Your task to perform on an android device: empty trash in the gmail app Image 0: 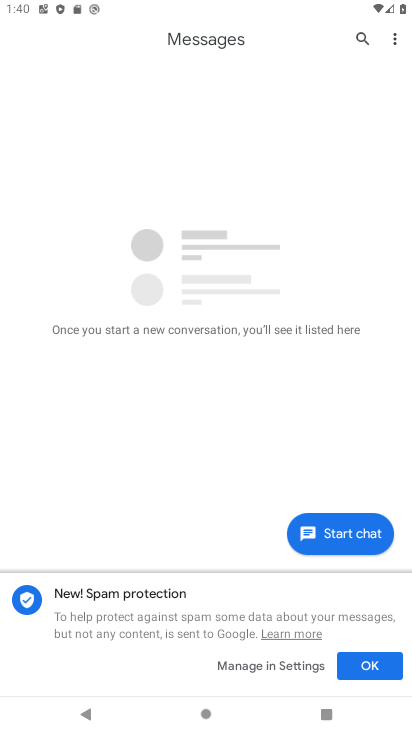
Step 0: press home button
Your task to perform on an android device: empty trash in the gmail app Image 1: 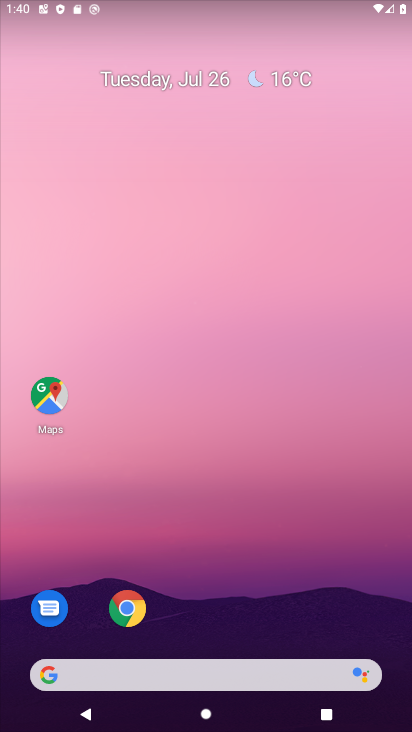
Step 1: drag from (252, 604) to (200, 187)
Your task to perform on an android device: empty trash in the gmail app Image 2: 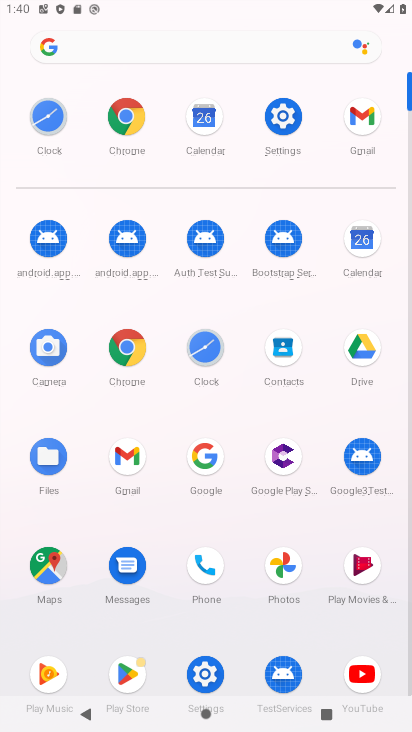
Step 2: click (359, 127)
Your task to perform on an android device: empty trash in the gmail app Image 3: 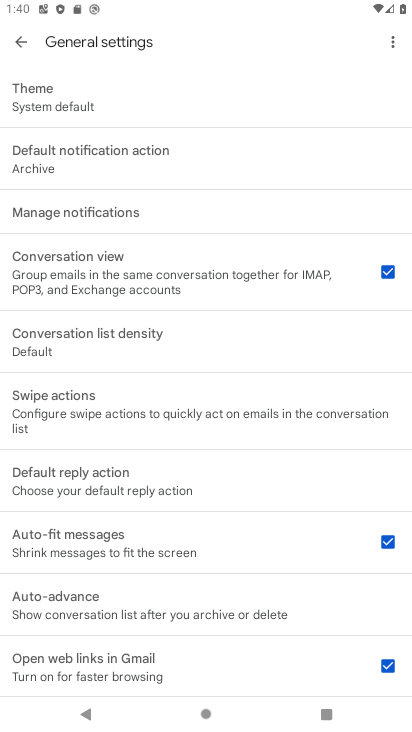
Step 3: task complete